Your task to perform on an android device: toggle notification dots Image 0: 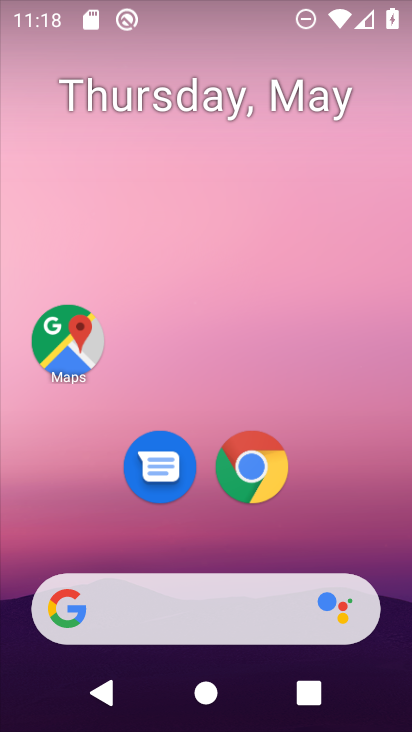
Step 0: drag from (224, 553) to (280, 140)
Your task to perform on an android device: toggle notification dots Image 1: 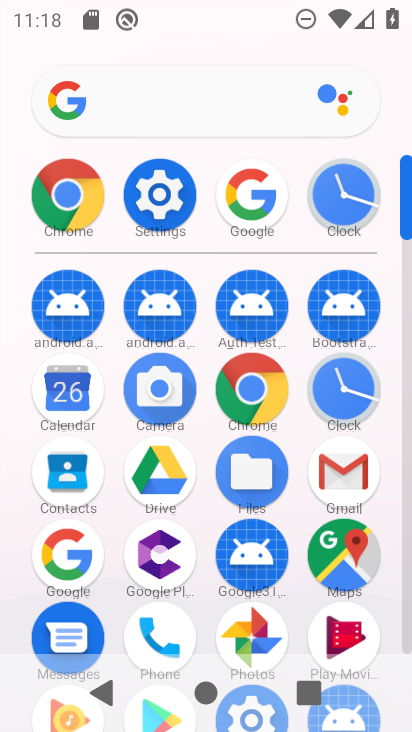
Step 1: drag from (206, 253) to (204, 83)
Your task to perform on an android device: toggle notification dots Image 2: 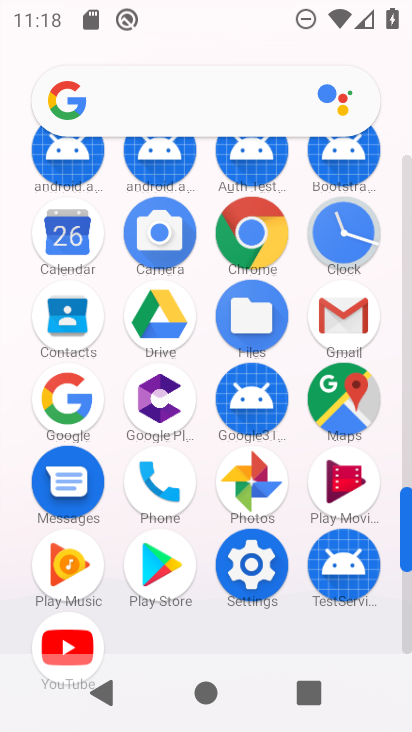
Step 2: click (251, 560)
Your task to perform on an android device: toggle notification dots Image 3: 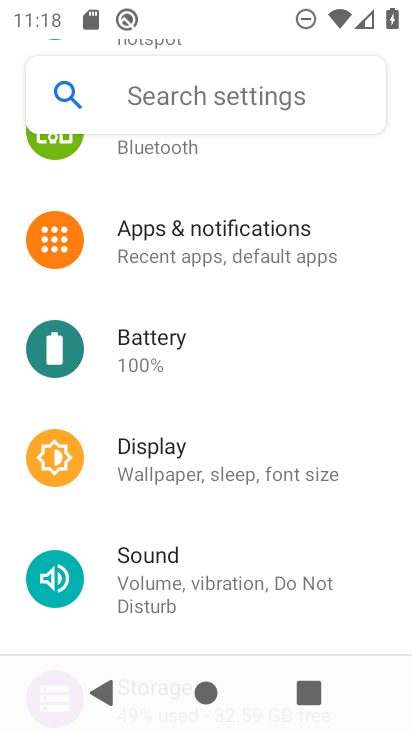
Step 3: click (277, 255)
Your task to perform on an android device: toggle notification dots Image 4: 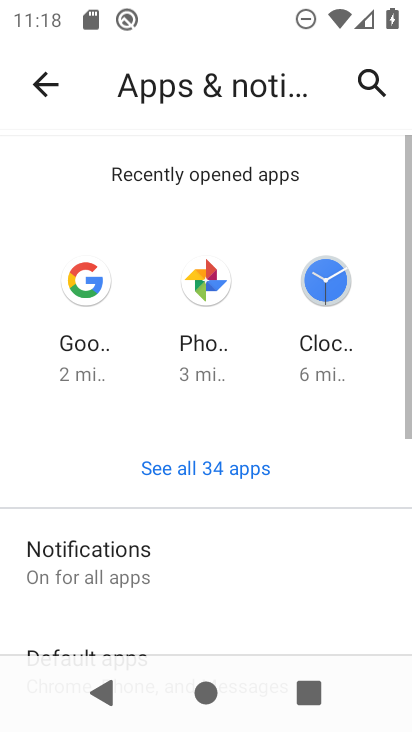
Step 4: drag from (226, 521) to (264, 201)
Your task to perform on an android device: toggle notification dots Image 5: 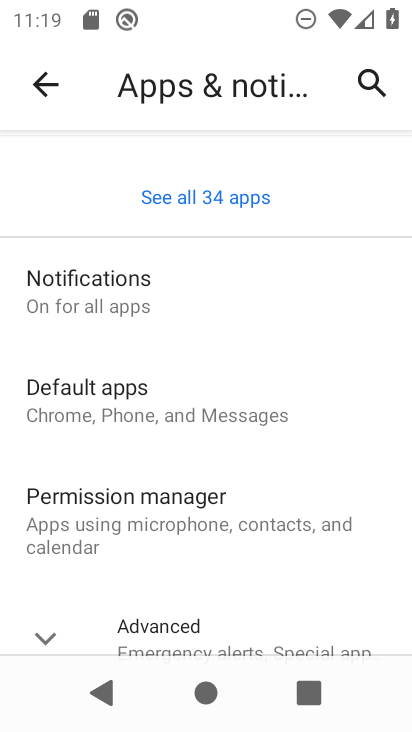
Step 5: click (197, 302)
Your task to perform on an android device: toggle notification dots Image 6: 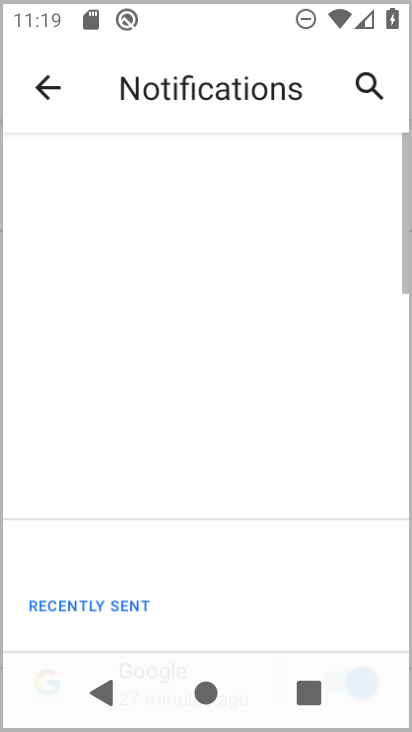
Step 6: drag from (211, 430) to (271, 47)
Your task to perform on an android device: toggle notification dots Image 7: 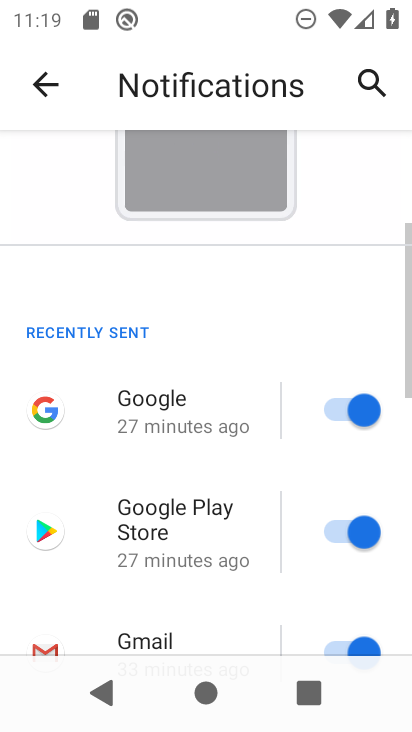
Step 7: drag from (240, 499) to (353, 35)
Your task to perform on an android device: toggle notification dots Image 8: 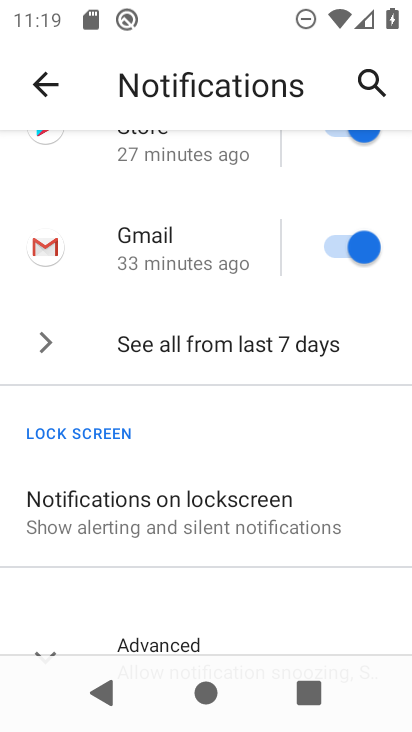
Step 8: drag from (212, 505) to (344, 13)
Your task to perform on an android device: toggle notification dots Image 9: 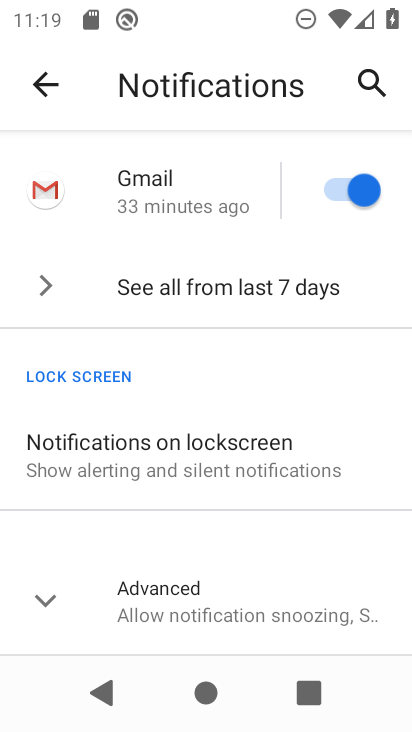
Step 9: click (175, 583)
Your task to perform on an android device: toggle notification dots Image 10: 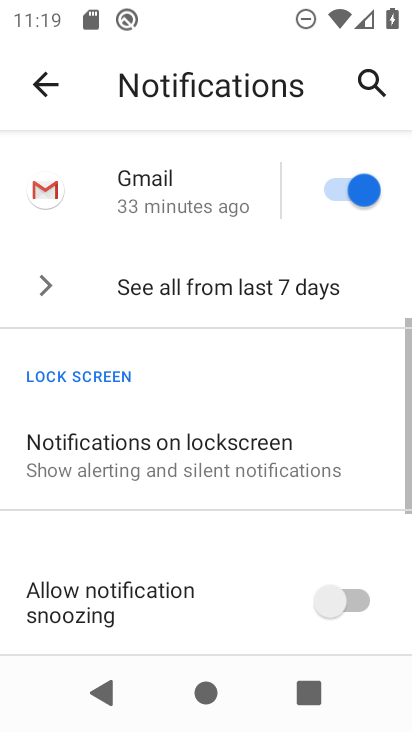
Step 10: drag from (205, 512) to (372, 77)
Your task to perform on an android device: toggle notification dots Image 11: 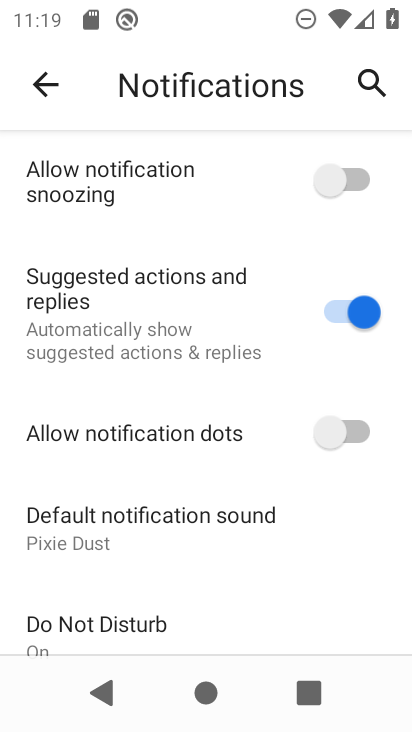
Step 11: click (330, 441)
Your task to perform on an android device: toggle notification dots Image 12: 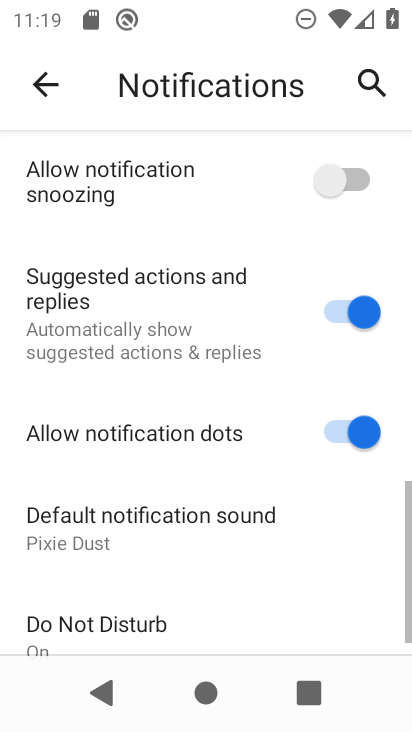
Step 12: task complete